Your task to perform on an android device: turn off sleep mode Image 0: 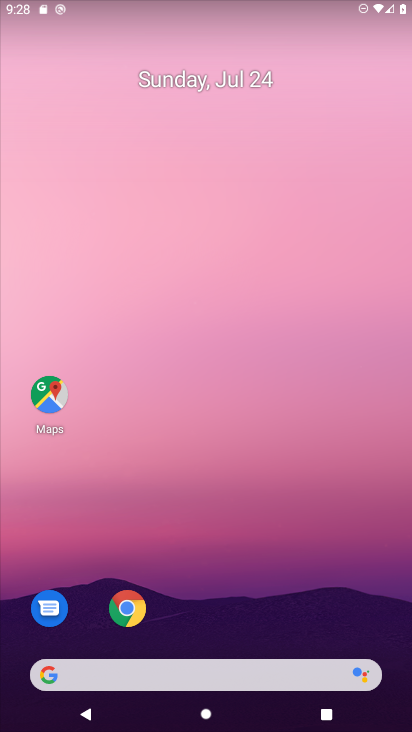
Step 0: drag from (235, 619) to (259, 127)
Your task to perform on an android device: turn off sleep mode Image 1: 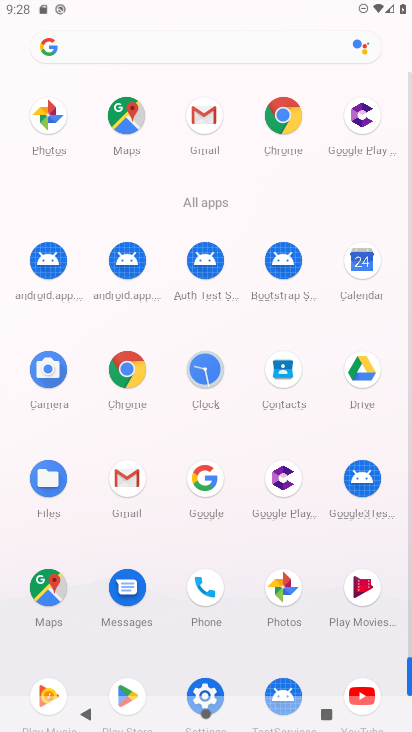
Step 1: click (199, 684)
Your task to perform on an android device: turn off sleep mode Image 2: 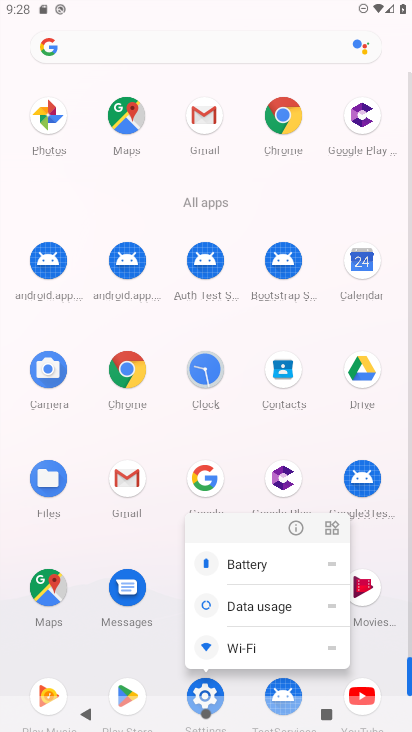
Step 2: click (287, 528)
Your task to perform on an android device: turn off sleep mode Image 3: 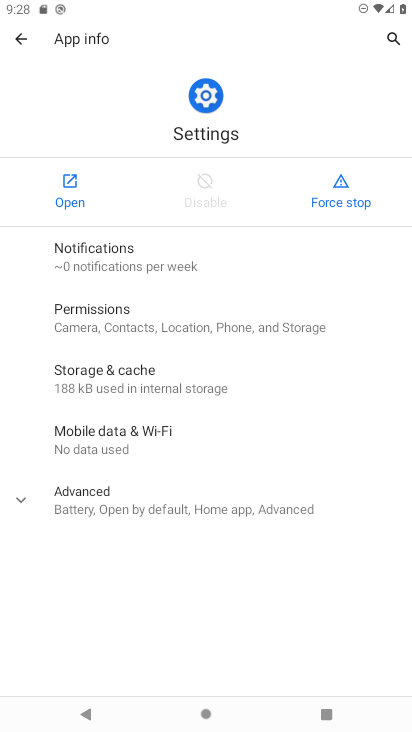
Step 3: click (71, 182)
Your task to perform on an android device: turn off sleep mode Image 4: 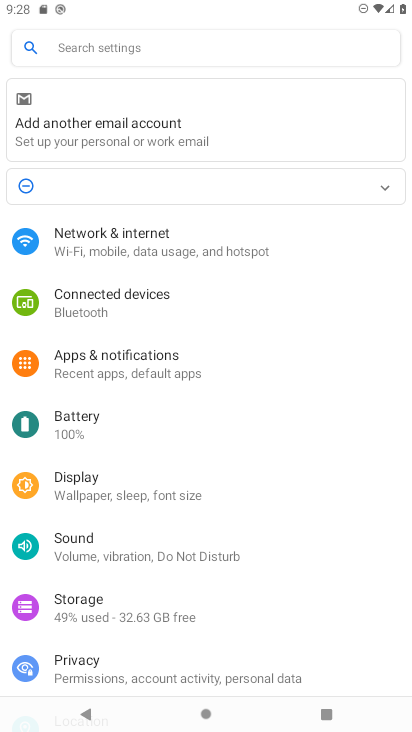
Step 4: click (108, 477)
Your task to perform on an android device: turn off sleep mode Image 5: 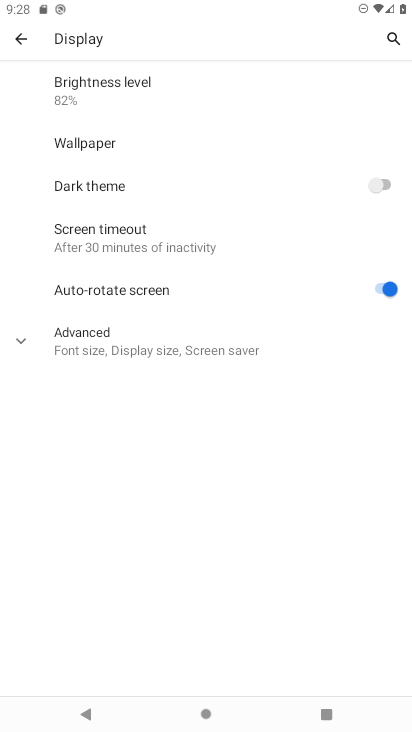
Step 5: click (142, 244)
Your task to perform on an android device: turn off sleep mode Image 6: 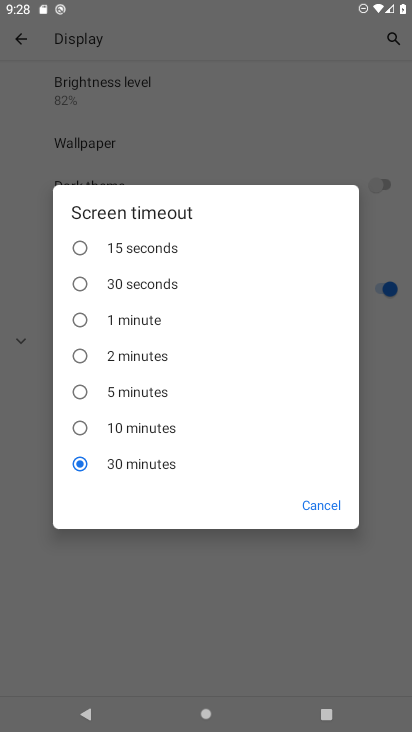
Step 6: click (108, 323)
Your task to perform on an android device: turn off sleep mode Image 7: 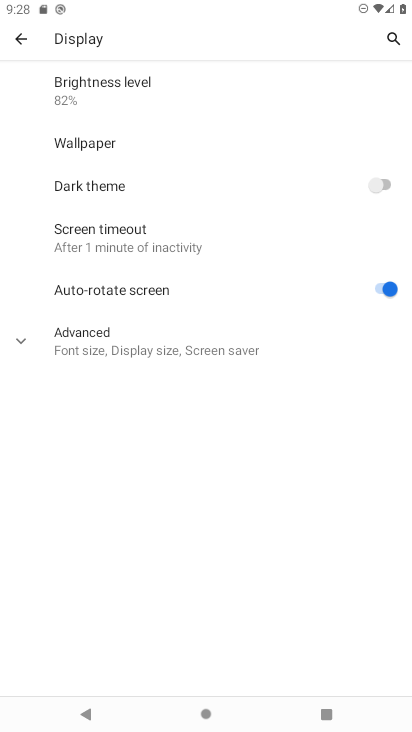
Step 7: task complete